Your task to perform on an android device: What's on Reddit Image 0: 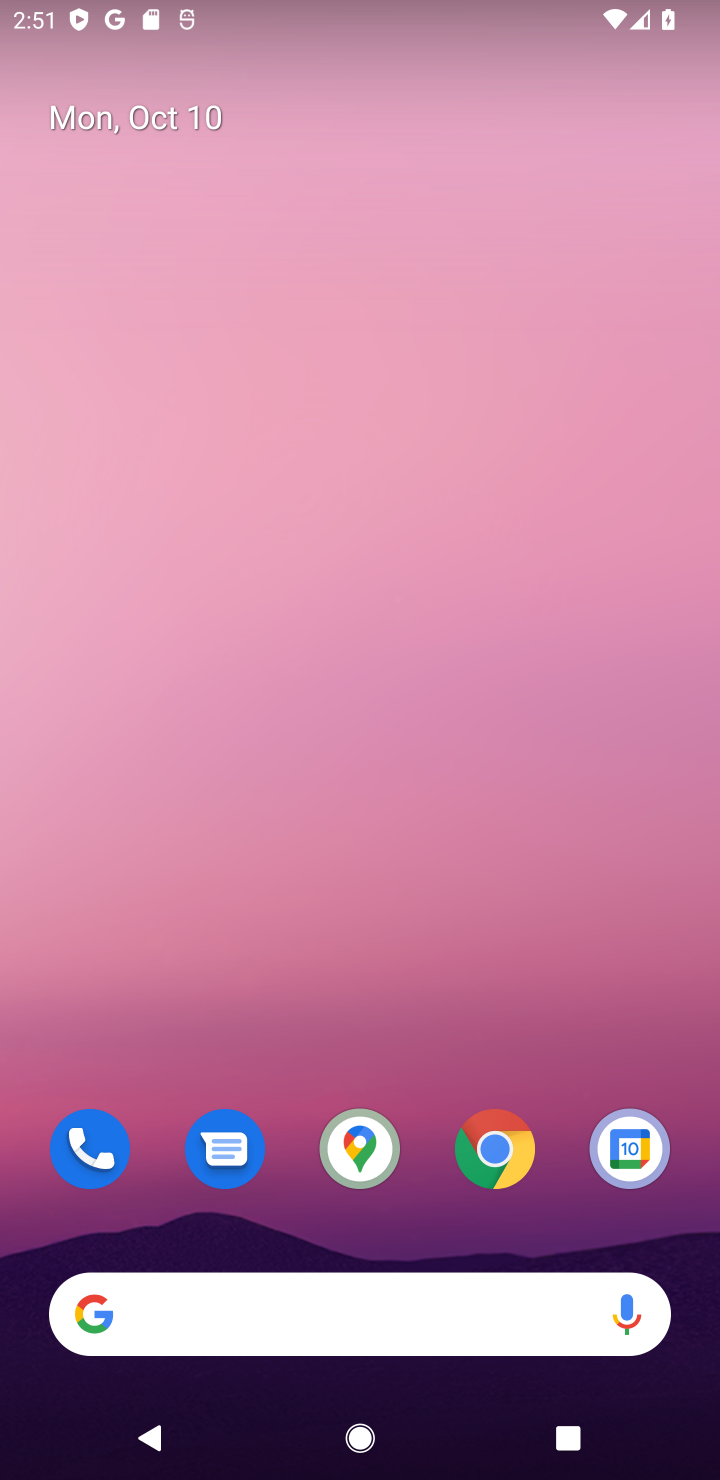
Step 0: click (323, 1328)
Your task to perform on an android device: What's on Reddit Image 1: 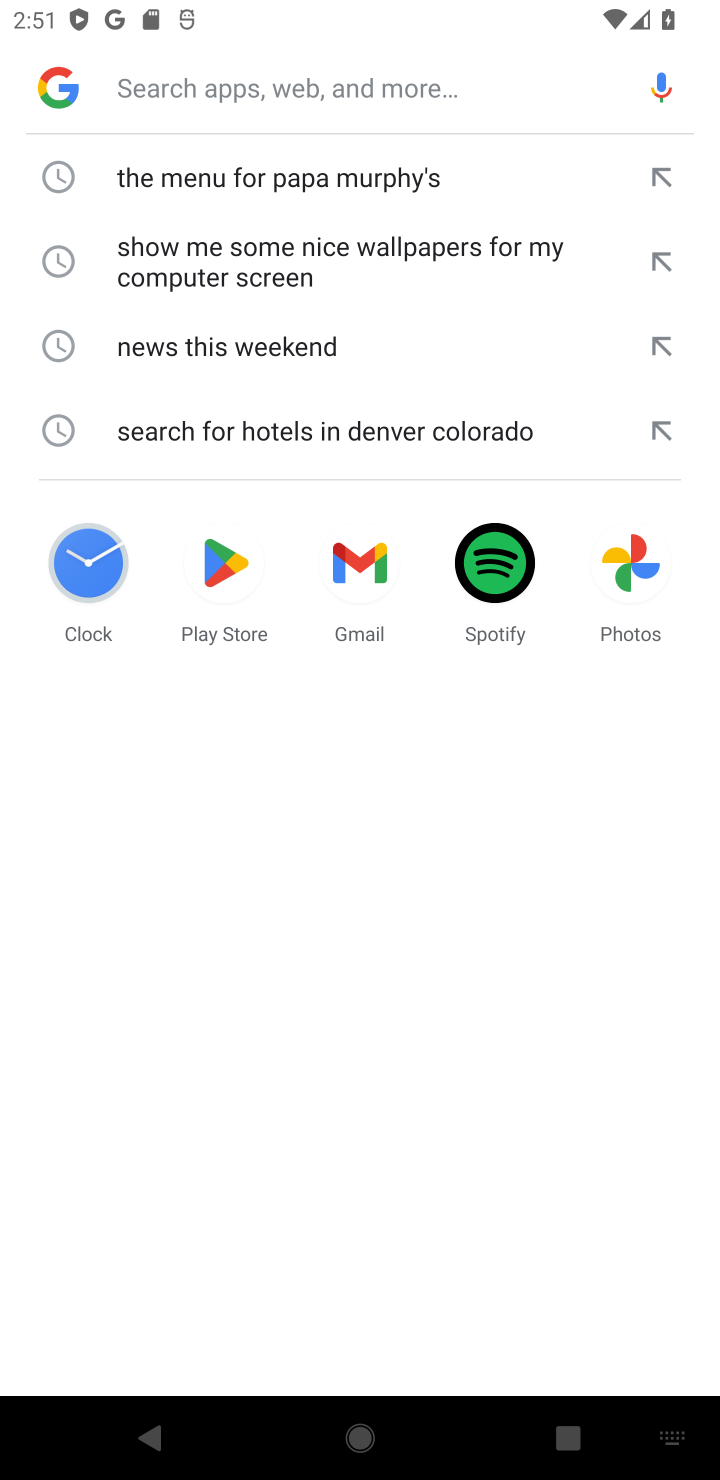
Step 1: type "What's on Reddit"
Your task to perform on an android device: What's on Reddit Image 2: 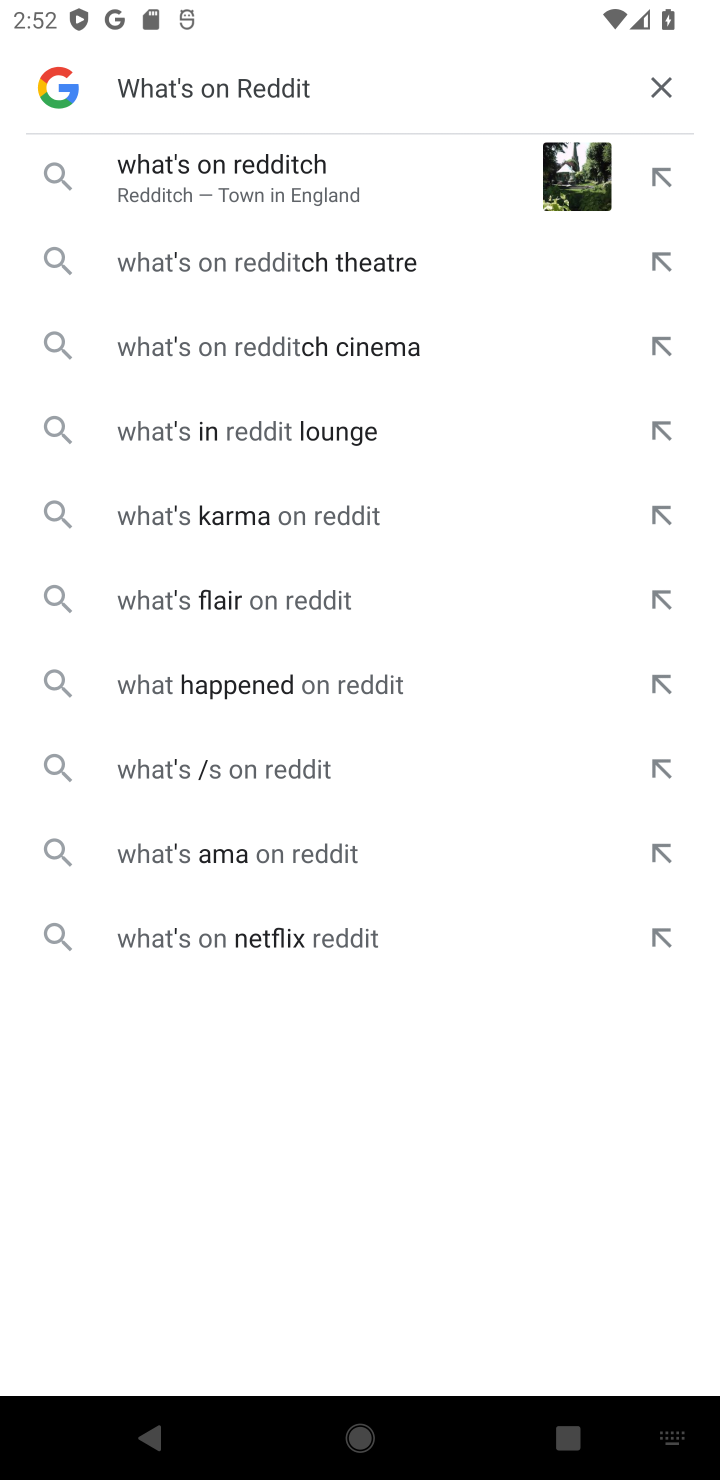
Step 2: click (265, 168)
Your task to perform on an android device: What's on Reddit Image 3: 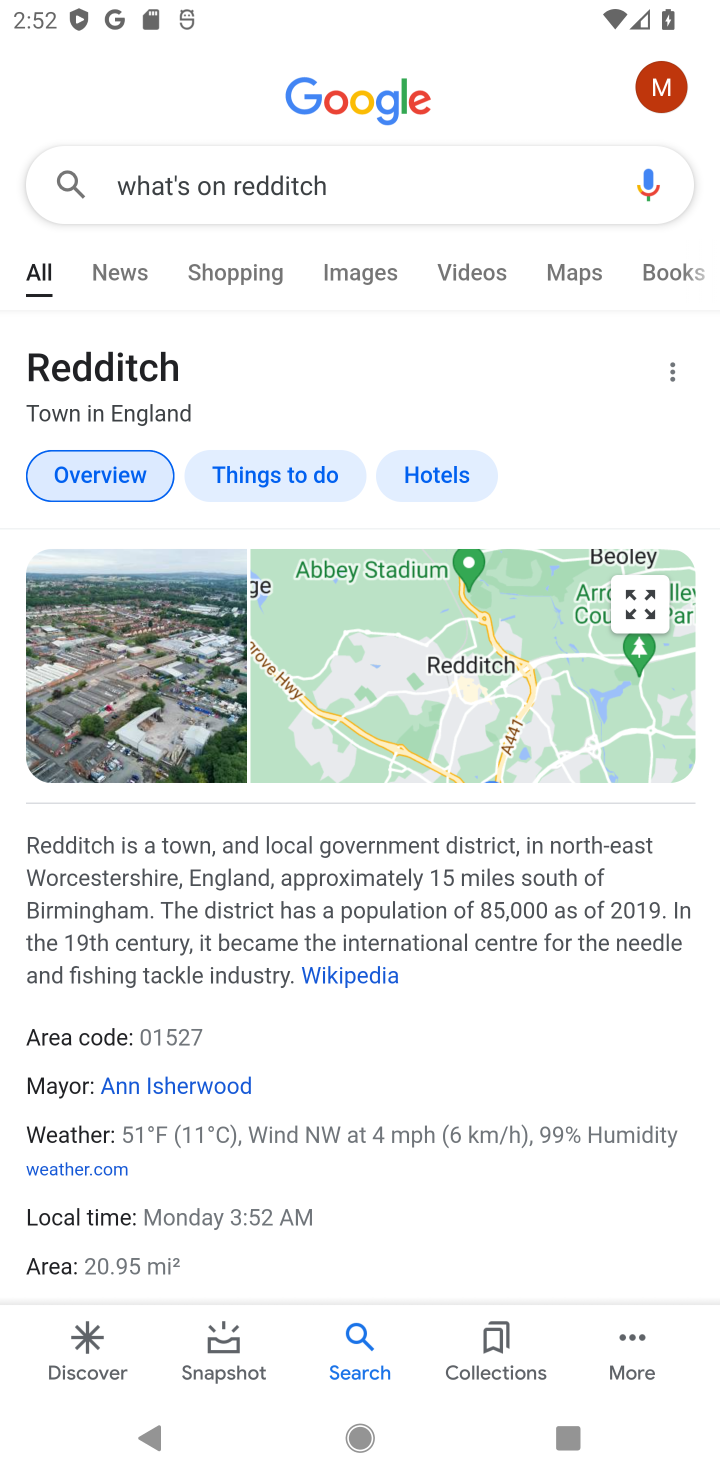
Step 3: task complete